Your task to perform on an android device: Open calendar and show me the third week of next month Image 0: 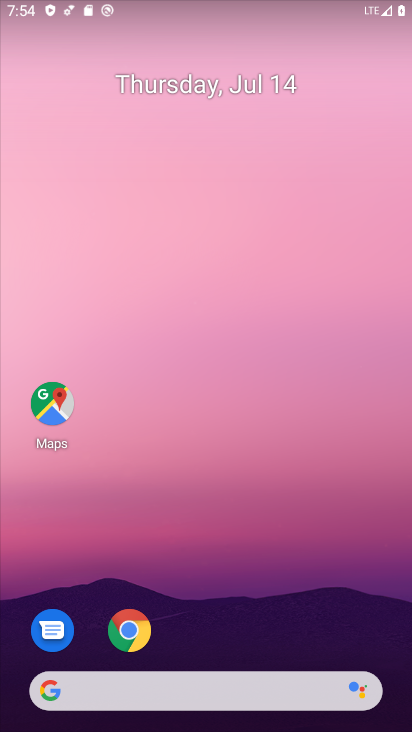
Step 0: drag from (260, 629) to (276, 135)
Your task to perform on an android device: Open calendar and show me the third week of next month Image 1: 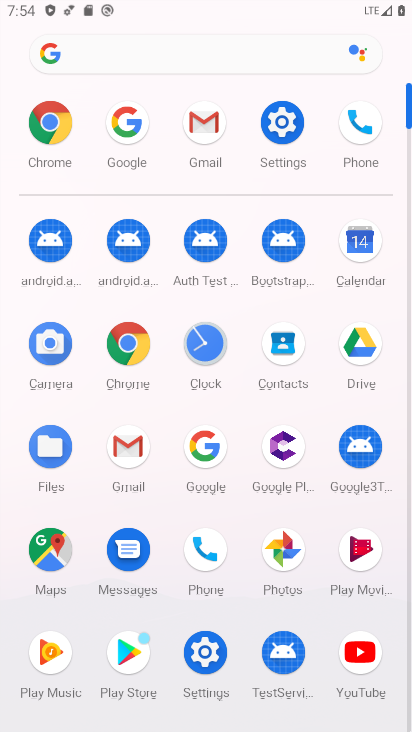
Step 1: click (358, 234)
Your task to perform on an android device: Open calendar and show me the third week of next month Image 2: 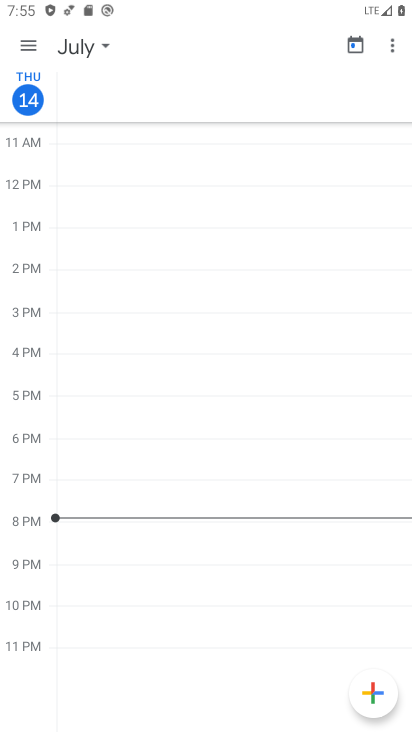
Step 2: click (26, 40)
Your task to perform on an android device: Open calendar and show me the third week of next month Image 3: 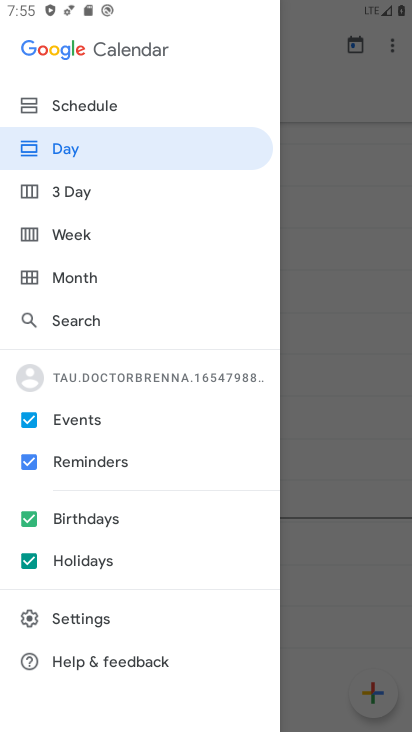
Step 3: click (80, 268)
Your task to perform on an android device: Open calendar and show me the third week of next month Image 4: 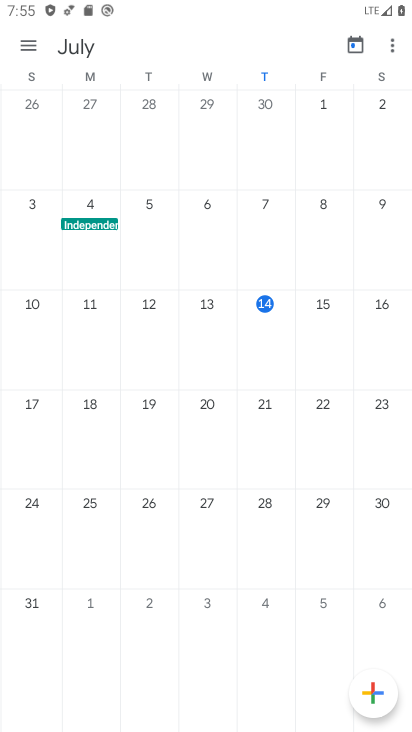
Step 4: task complete